Your task to perform on an android device: Go to settings Image 0: 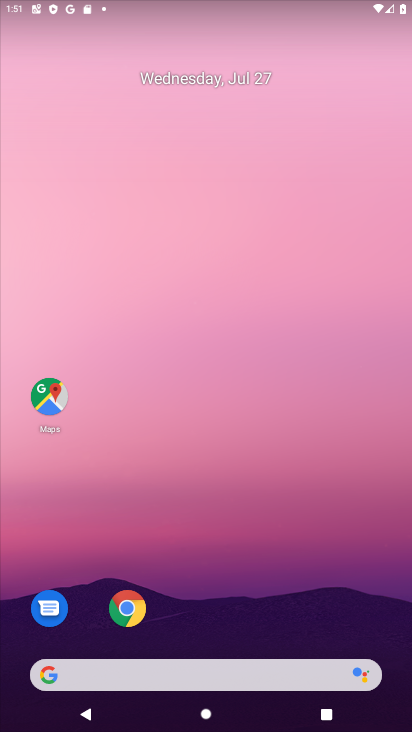
Step 0: drag from (27, 697) to (300, 180)
Your task to perform on an android device: Go to settings Image 1: 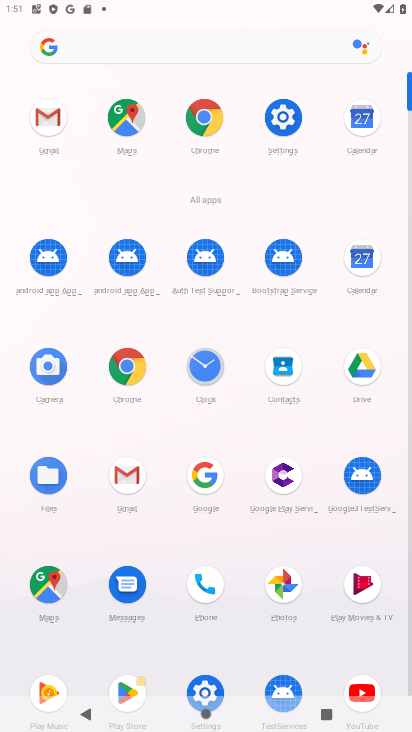
Step 1: click (199, 686)
Your task to perform on an android device: Go to settings Image 2: 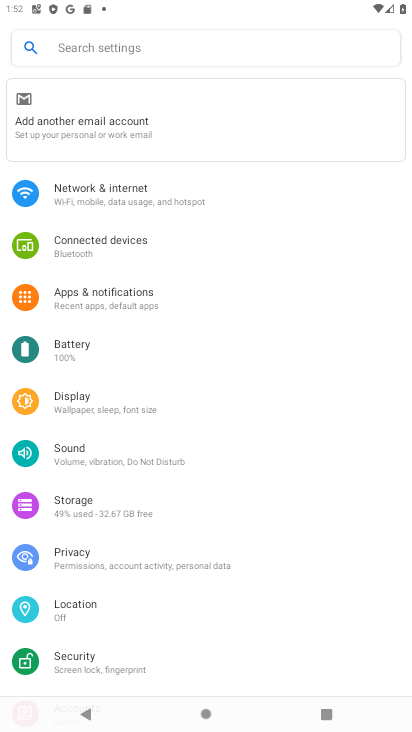
Step 2: task complete